Your task to perform on an android device: toggle translation in the chrome app Image 0: 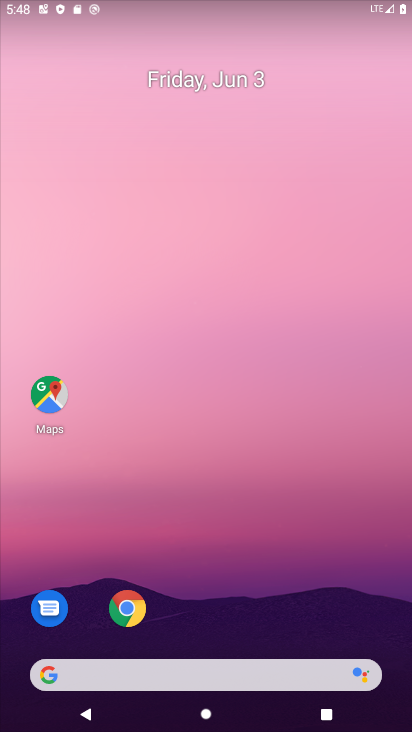
Step 0: click (121, 608)
Your task to perform on an android device: toggle translation in the chrome app Image 1: 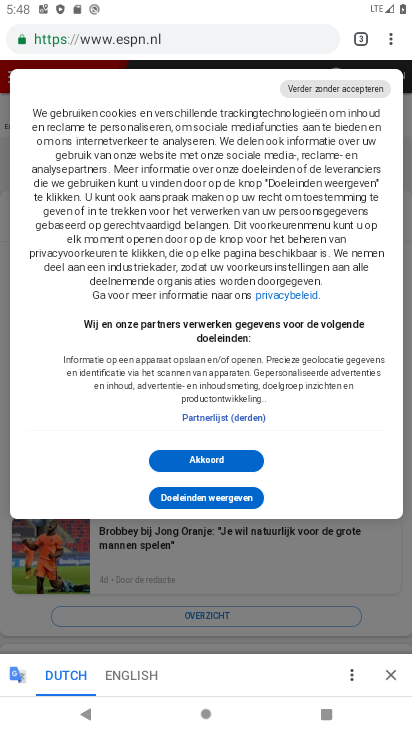
Step 1: click (389, 31)
Your task to perform on an android device: toggle translation in the chrome app Image 2: 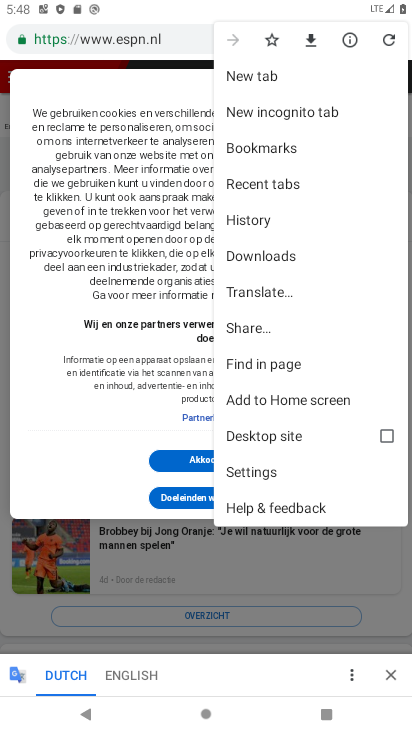
Step 2: click (278, 294)
Your task to perform on an android device: toggle translation in the chrome app Image 3: 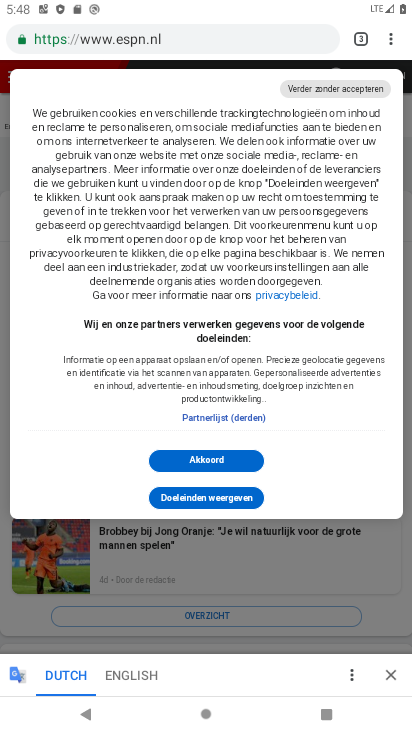
Step 3: click (390, 38)
Your task to perform on an android device: toggle translation in the chrome app Image 4: 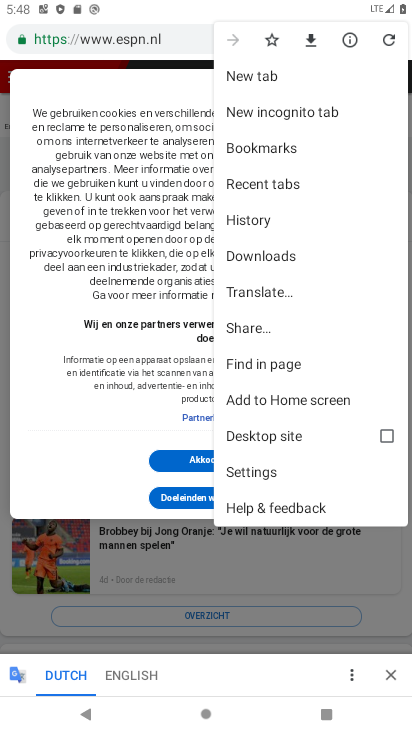
Step 4: click (245, 287)
Your task to perform on an android device: toggle translation in the chrome app Image 5: 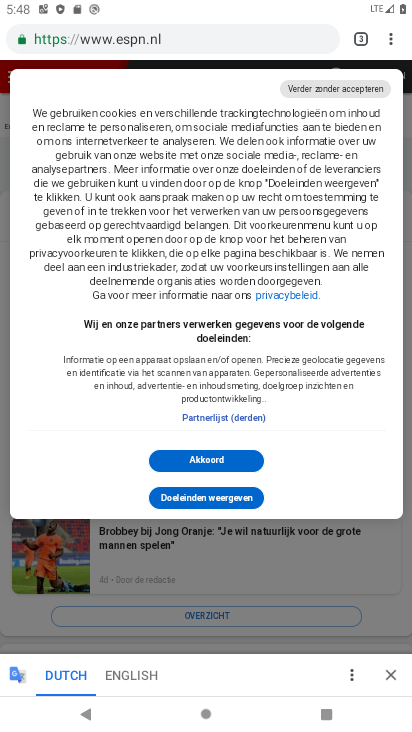
Step 5: click (72, 687)
Your task to perform on an android device: toggle translation in the chrome app Image 6: 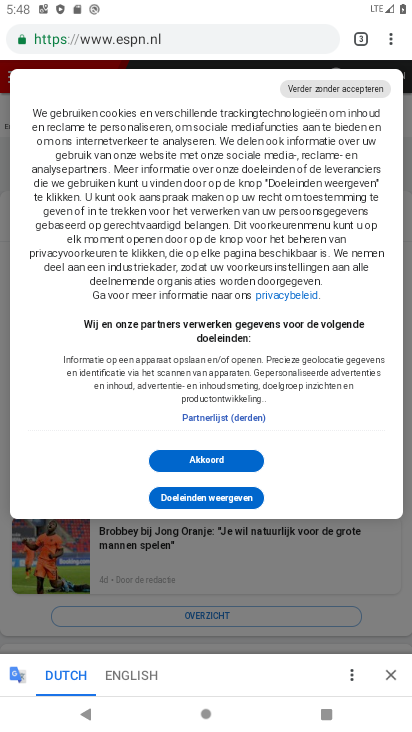
Step 6: click (353, 673)
Your task to perform on an android device: toggle translation in the chrome app Image 7: 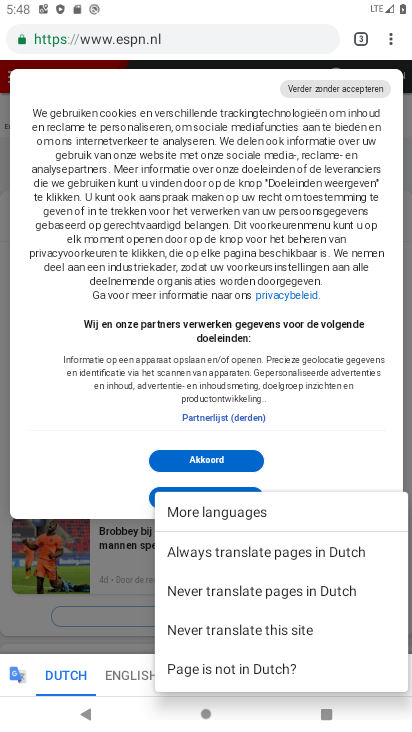
Step 7: click (284, 596)
Your task to perform on an android device: toggle translation in the chrome app Image 8: 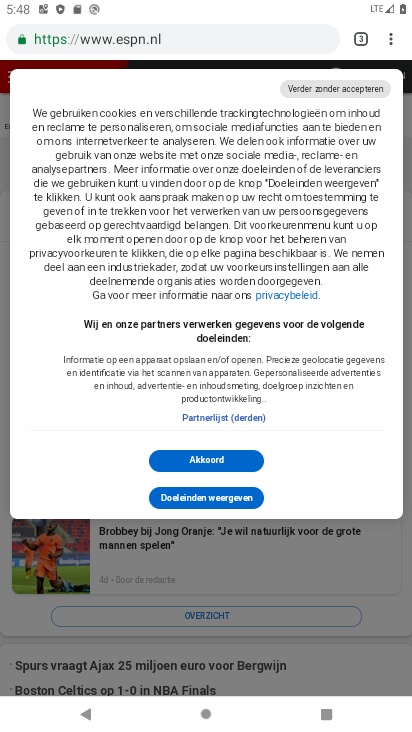
Step 8: task complete